Your task to perform on an android device: Set the phone to "Do not disturb". Image 0: 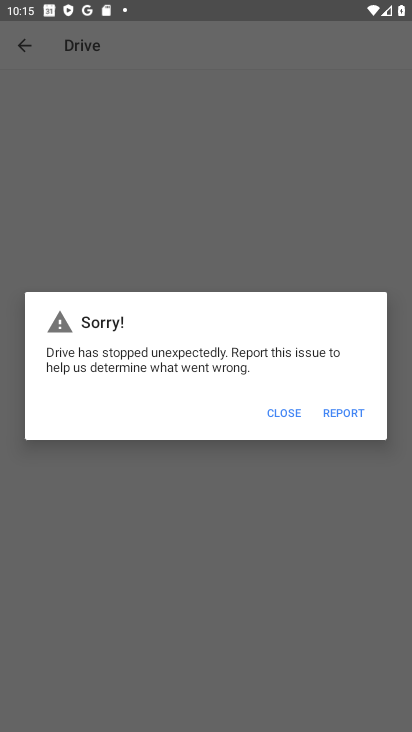
Step 0: press home button
Your task to perform on an android device: Set the phone to "Do not disturb". Image 1: 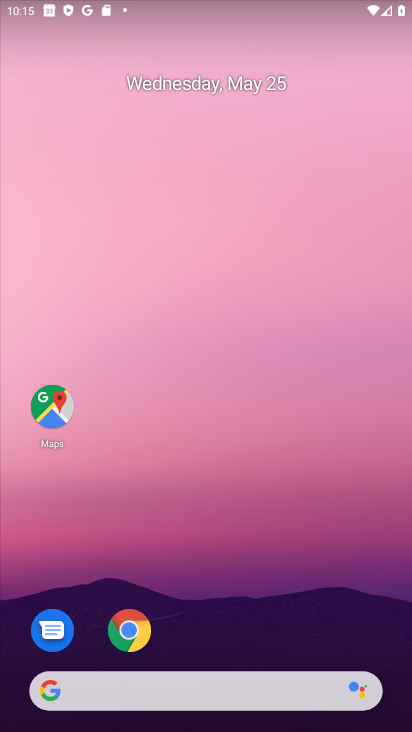
Step 1: drag from (333, 584) to (224, 160)
Your task to perform on an android device: Set the phone to "Do not disturb". Image 2: 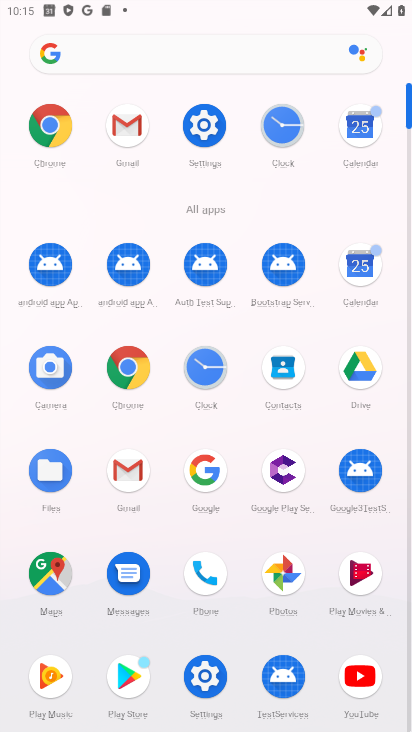
Step 2: click (213, 129)
Your task to perform on an android device: Set the phone to "Do not disturb". Image 3: 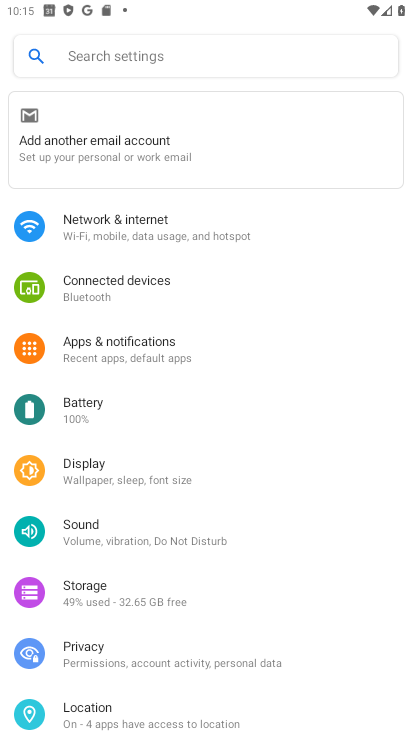
Step 3: drag from (231, 2) to (225, 583)
Your task to perform on an android device: Set the phone to "Do not disturb". Image 4: 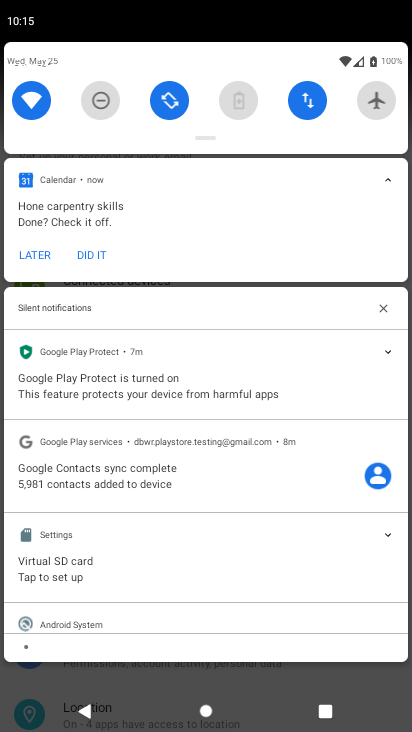
Step 4: click (98, 107)
Your task to perform on an android device: Set the phone to "Do not disturb". Image 5: 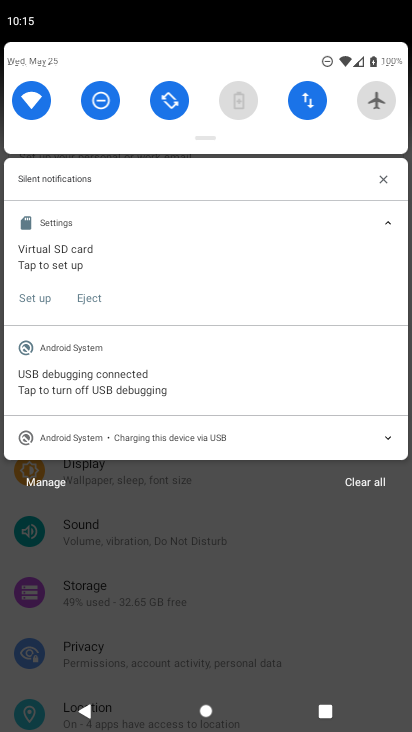
Step 5: task complete